Your task to perform on an android device: Go to privacy settings Image 0: 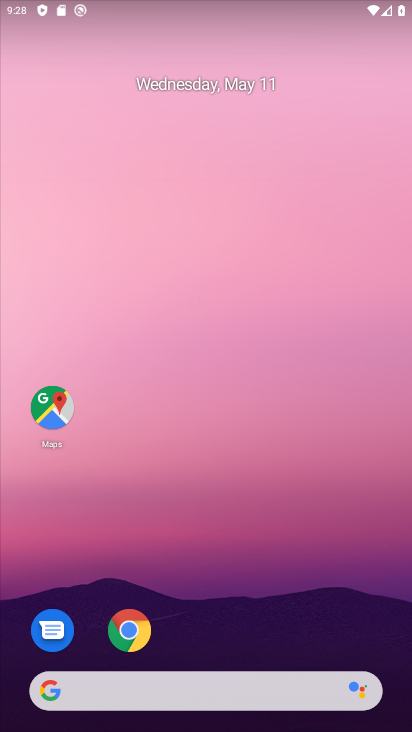
Step 0: drag from (254, 574) to (266, 202)
Your task to perform on an android device: Go to privacy settings Image 1: 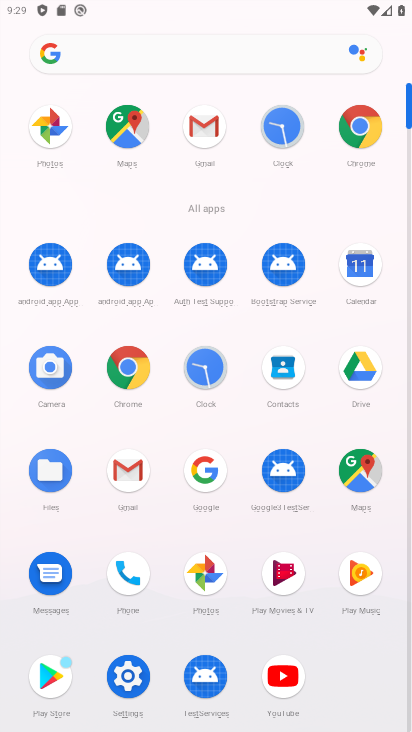
Step 1: click (123, 663)
Your task to perform on an android device: Go to privacy settings Image 2: 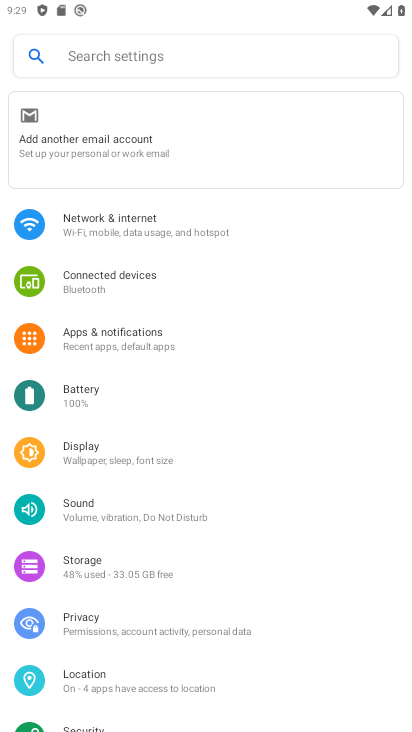
Step 2: click (155, 621)
Your task to perform on an android device: Go to privacy settings Image 3: 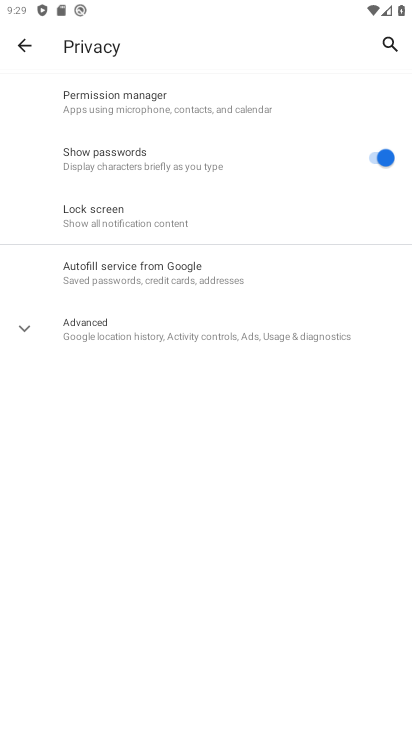
Step 3: task complete